Your task to perform on an android device: Go to settings Image 0: 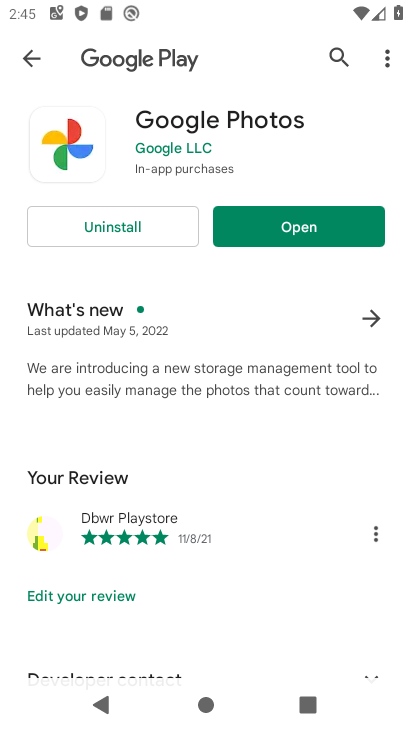
Step 0: press home button
Your task to perform on an android device: Go to settings Image 1: 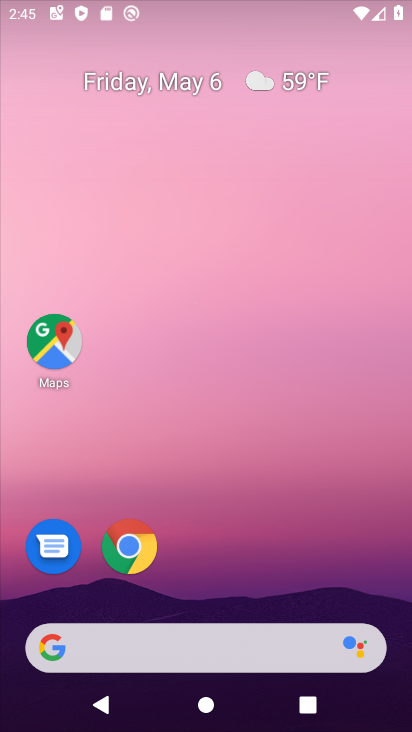
Step 1: drag from (253, 522) to (280, 65)
Your task to perform on an android device: Go to settings Image 2: 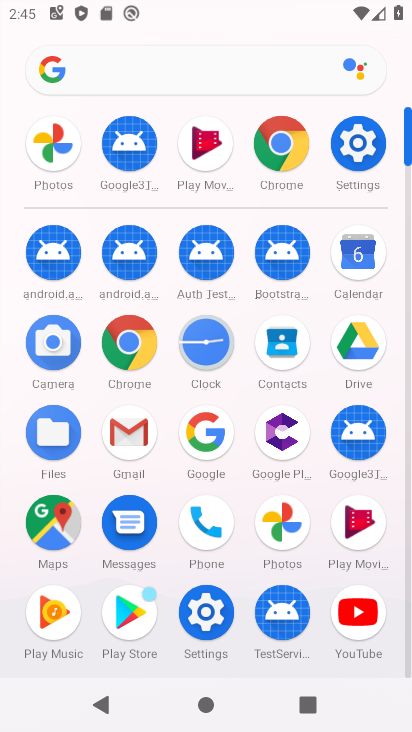
Step 2: click (360, 147)
Your task to perform on an android device: Go to settings Image 3: 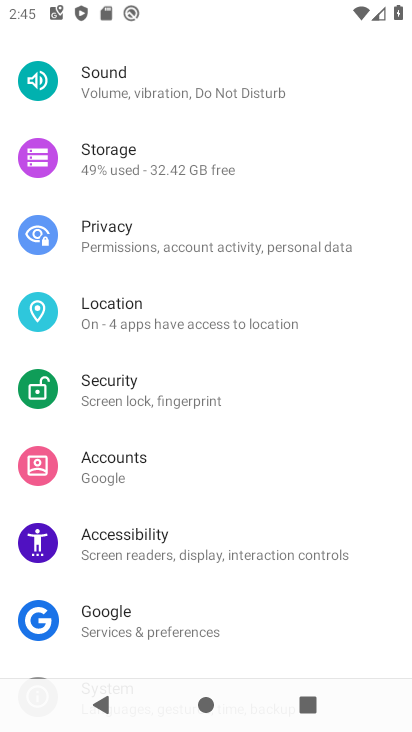
Step 3: task complete